Your task to perform on an android device: find photos in the google photos app Image 0: 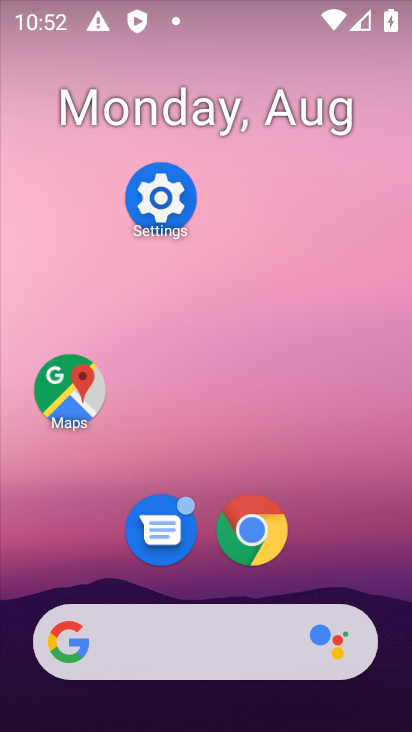
Step 0: drag from (203, 428) to (160, 126)
Your task to perform on an android device: find photos in the google photos app Image 1: 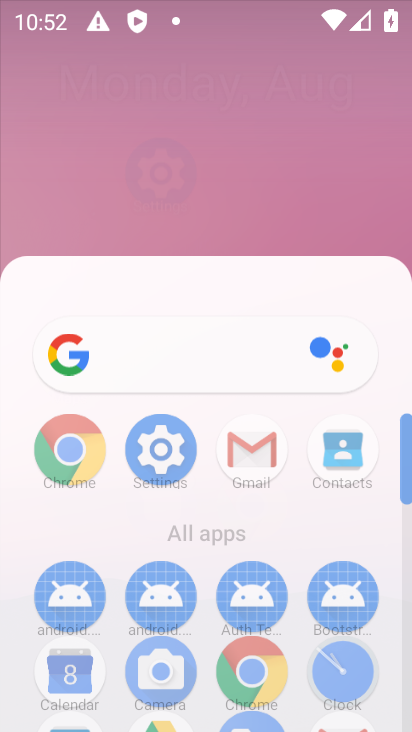
Step 1: drag from (235, 513) to (249, 207)
Your task to perform on an android device: find photos in the google photos app Image 2: 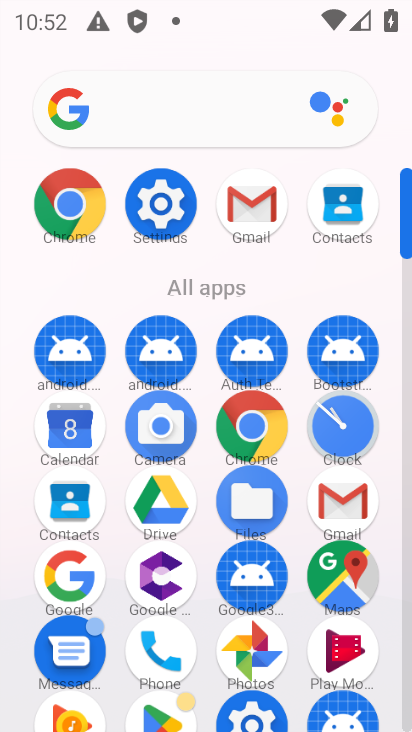
Step 2: drag from (217, 555) to (231, 329)
Your task to perform on an android device: find photos in the google photos app Image 3: 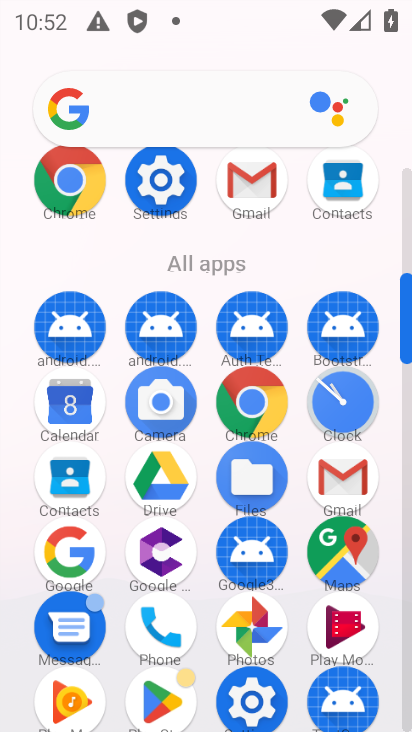
Step 3: click (235, 631)
Your task to perform on an android device: find photos in the google photos app Image 4: 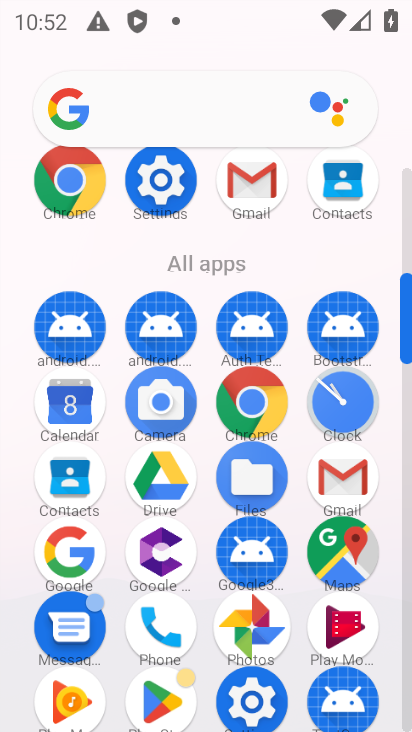
Step 4: click (245, 616)
Your task to perform on an android device: find photos in the google photos app Image 5: 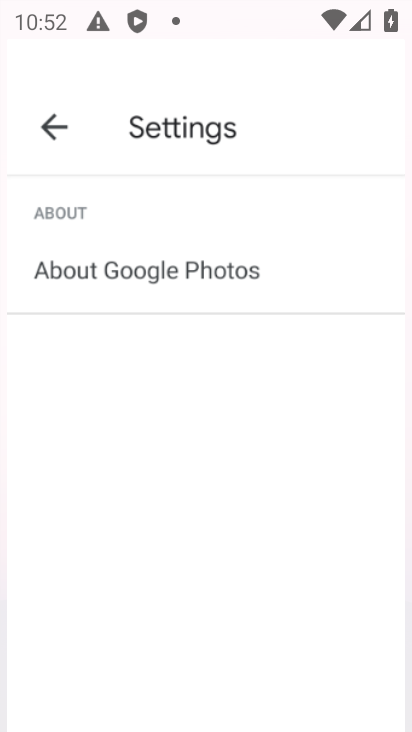
Step 5: click (251, 622)
Your task to perform on an android device: find photos in the google photos app Image 6: 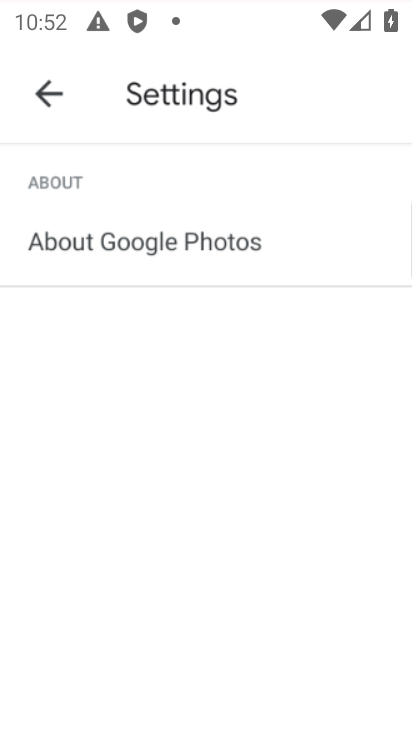
Step 6: click (251, 622)
Your task to perform on an android device: find photos in the google photos app Image 7: 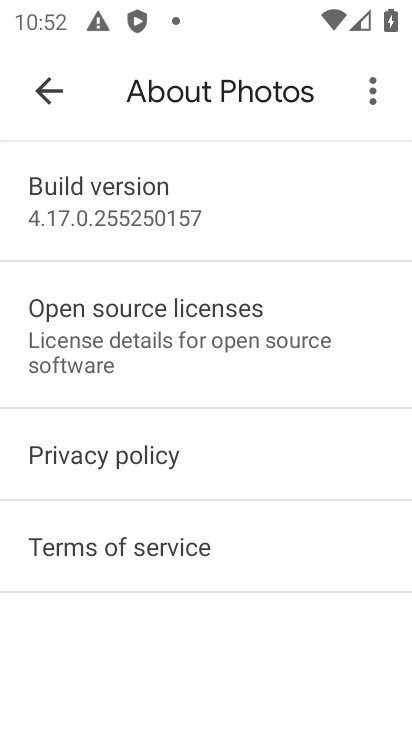
Step 7: click (33, 93)
Your task to perform on an android device: find photos in the google photos app Image 8: 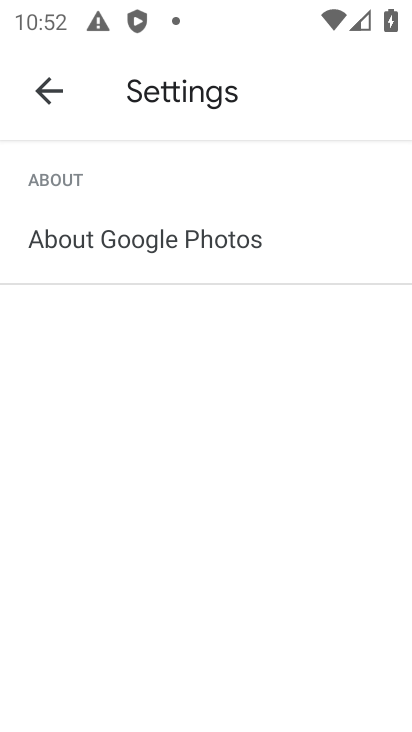
Step 8: click (41, 85)
Your task to perform on an android device: find photos in the google photos app Image 9: 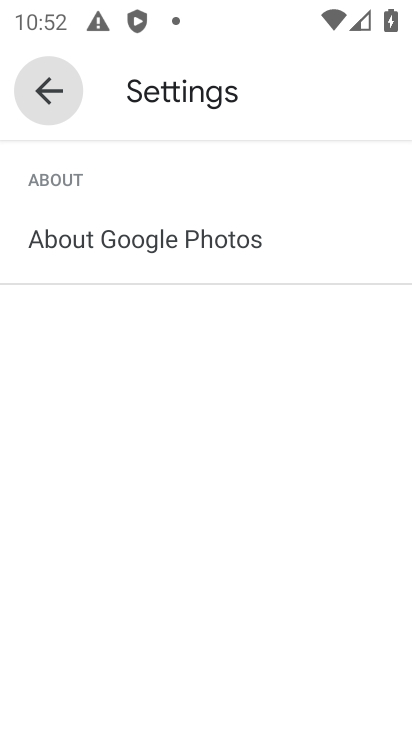
Step 9: click (43, 84)
Your task to perform on an android device: find photos in the google photos app Image 10: 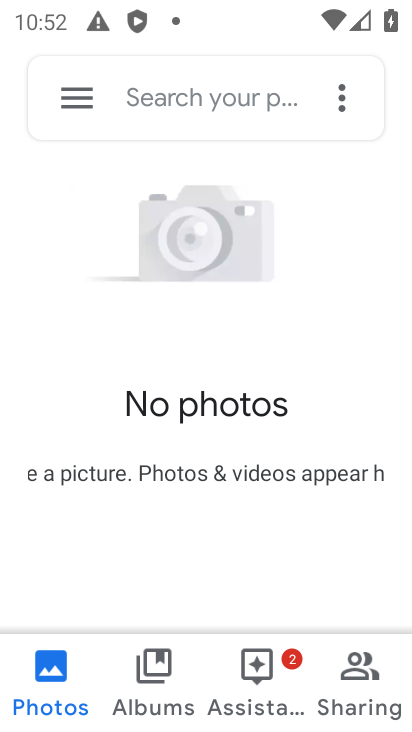
Step 10: click (154, 682)
Your task to perform on an android device: find photos in the google photos app Image 11: 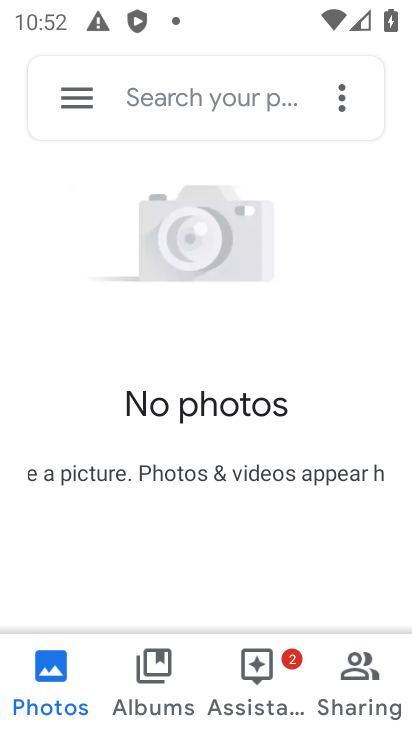
Step 11: click (154, 682)
Your task to perform on an android device: find photos in the google photos app Image 12: 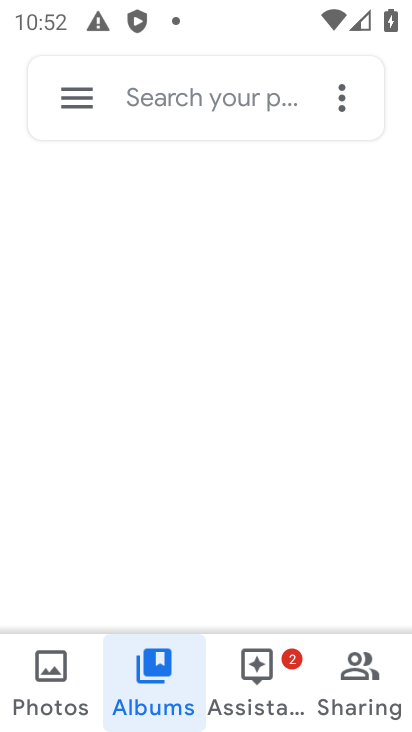
Step 12: click (155, 683)
Your task to perform on an android device: find photos in the google photos app Image 13: 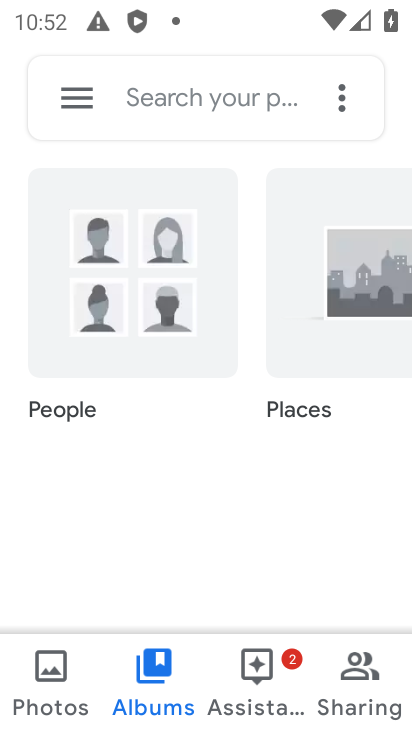
Step 13: click (160, 678)
Your task to perform on an android device: find photos in the google photos app Image 14: 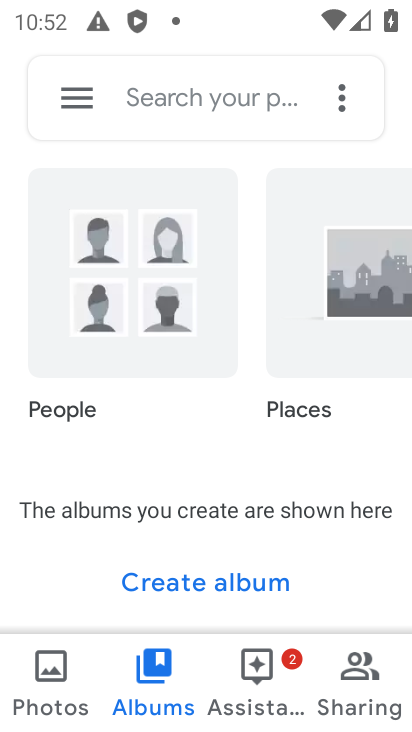
Step 14: click (51, 673)
Your task to perform on an android device: find photos in the google photos app Image 15: 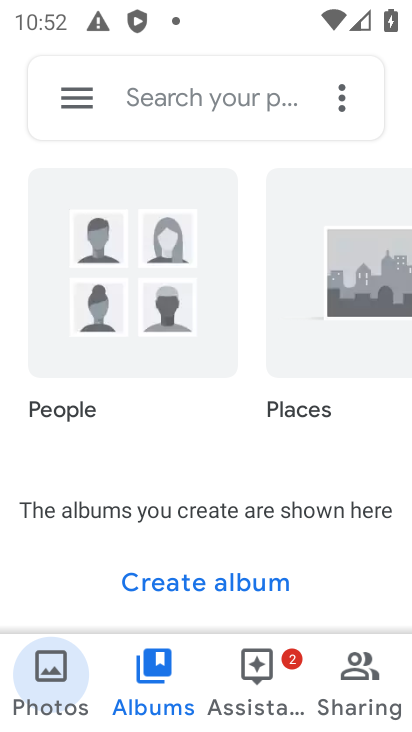
Step 15: click (52, 672)
Your task to perform on an android device: find photos in the google photos app Image 16: 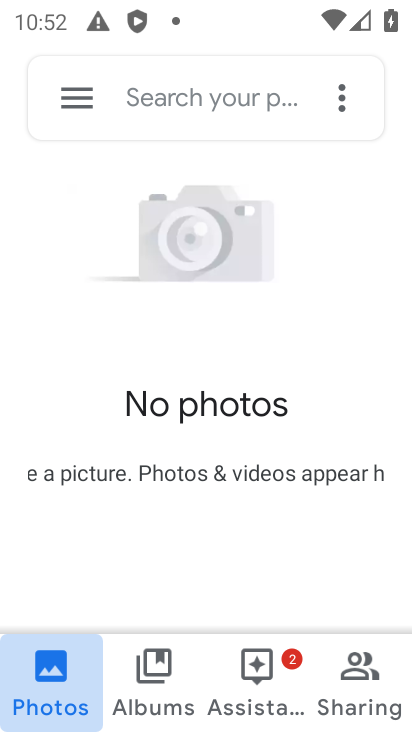
Step 16: click (52, 673)
Your task to perform on an android device: find photos in the google photos app Image 17: 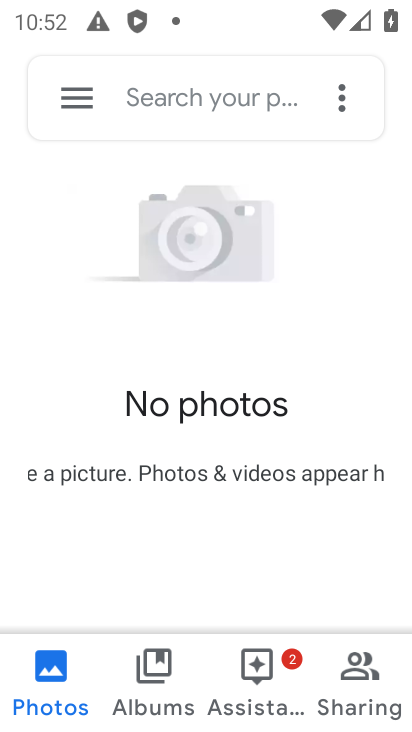
Step 17: task complete